Your task to perform on an android device: What's the weather today? Image 0: 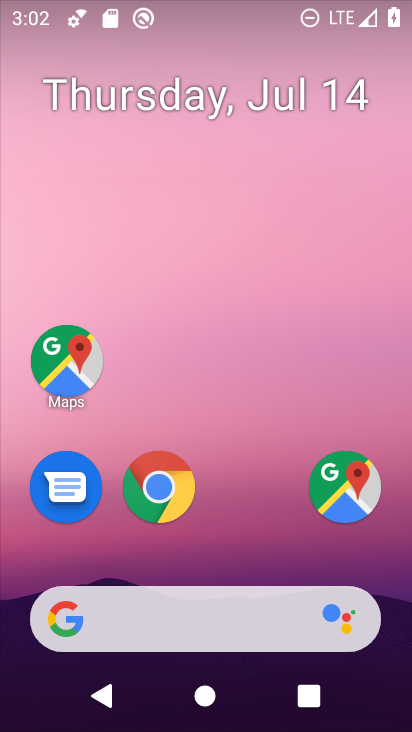
Step 0: click (206, 621)
Your task to perform on an android device: What's the weather today? Image 1: 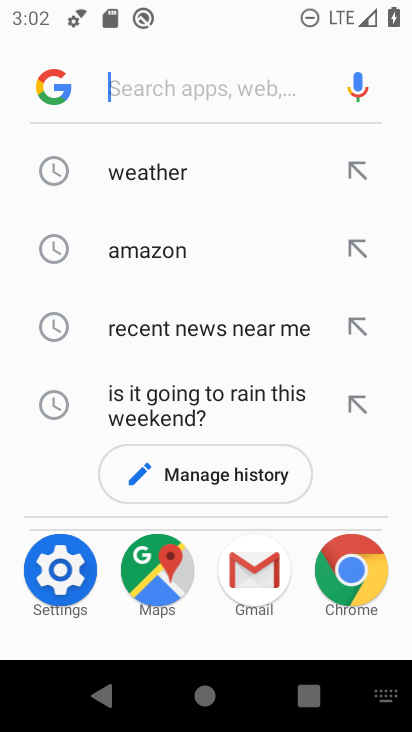
Step 1: click (186, 179)
Your task to perform on an android device: What's the weather today? Image 2: 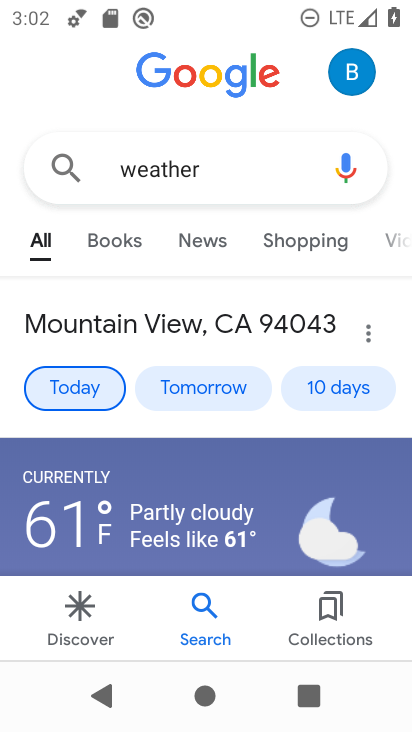
Step 2: click (88, 381)
Your task to perform on an android device: What's the weather today? Image 3: 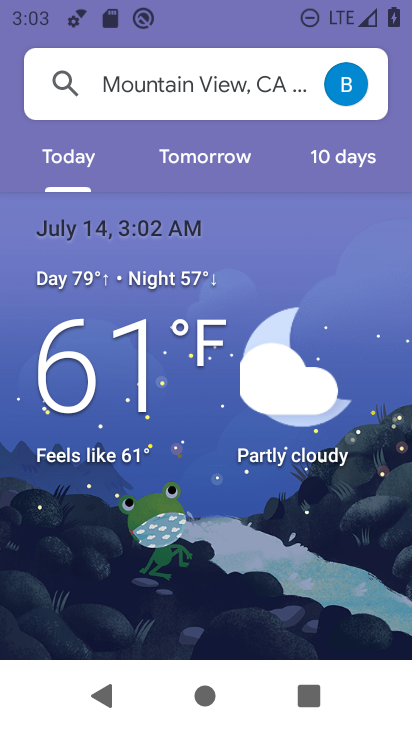
Step 3: task complete